Your task to perform on an android device: What's the weather going to be tomorrow? Image 0: 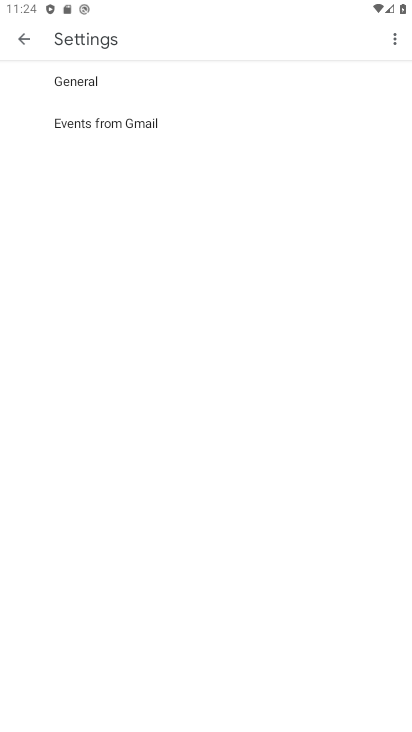
Step 0: press home button
Your task to perform on an android device: What's the weather going to be tomorrow? Image 1: 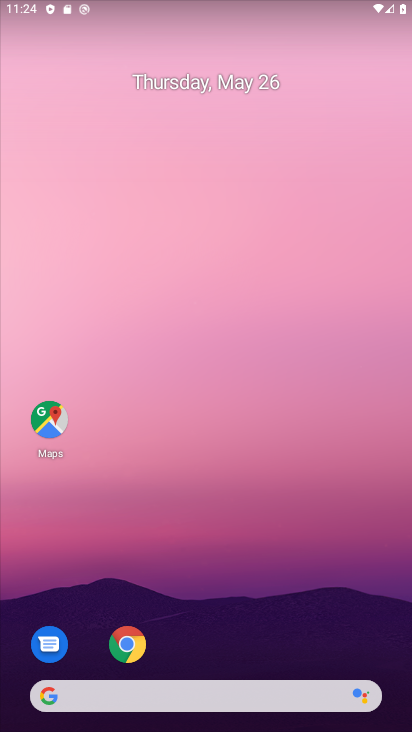
Step 1: drag from (261, 569) to (178, 95)
Your task to perform on an android device: What's the weather going to be tomorrow? Image 2: 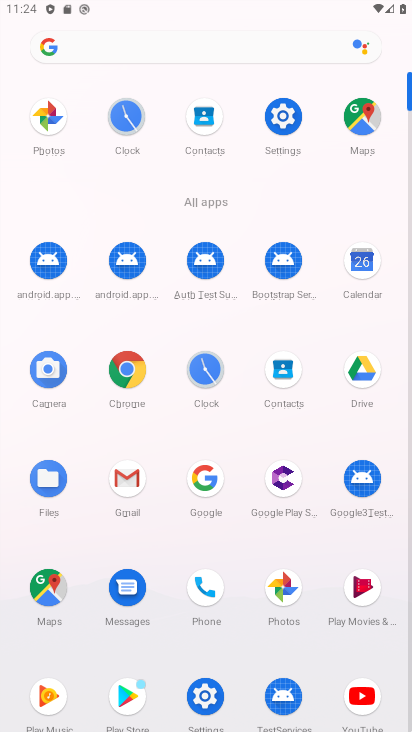
Step 2: click (211, 482)
Your task to perform on an android device: What's the weather going to be tomorrow? Image 3: 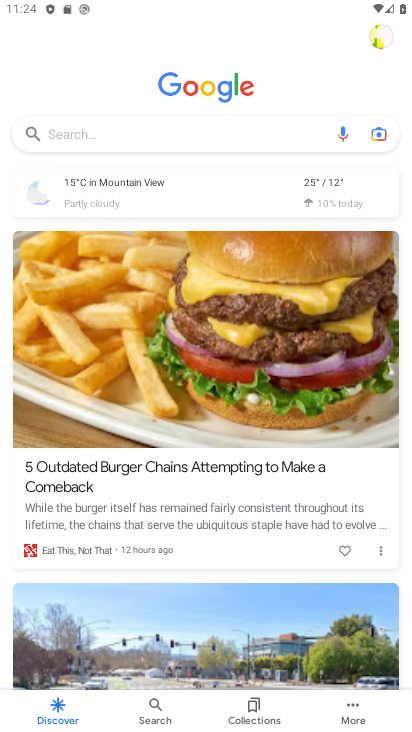
Step 3: click (323, 182)
Your task to perform on an android device: What's the weather going to be tomorrow? Image 4: 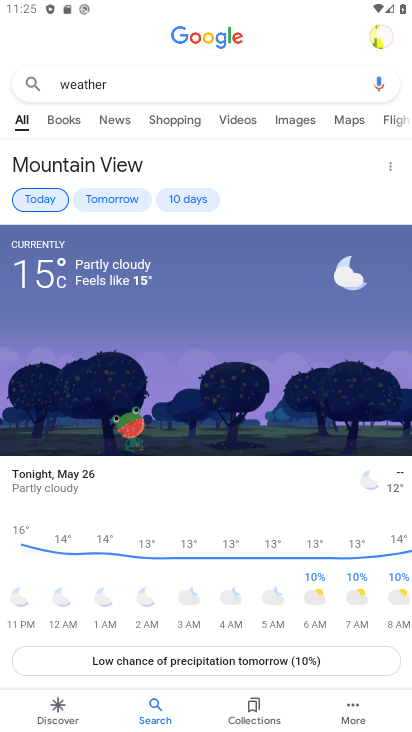
Step 4: click (108, 199)
Your task to perform on an android device: What's the weather going to be tomorrow? Image 5: 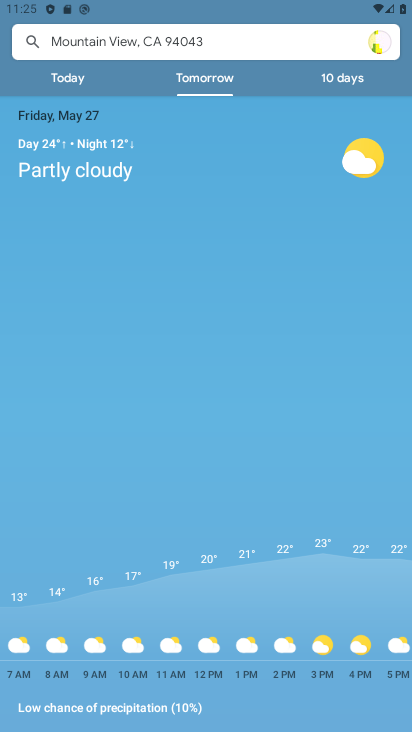
Step 5: task complete